Your task to perform on an android device: set an alarm Image 0: 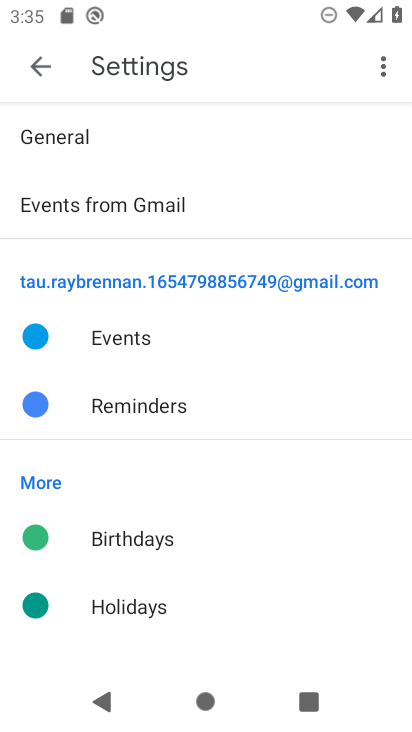
Step 0: press home button
Your task to perform on an android device: set an alarm Image 1: 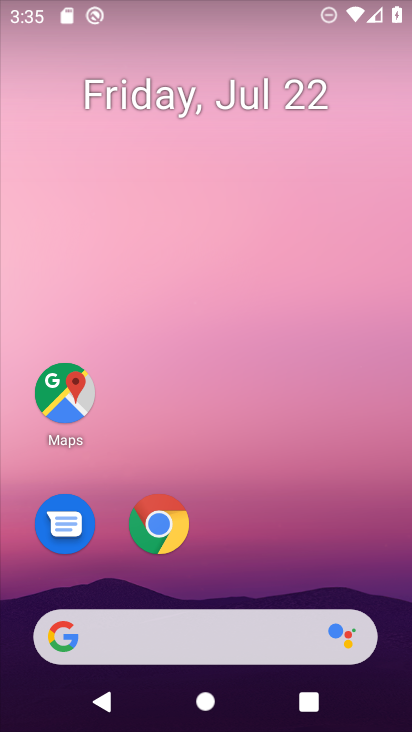
Step 1: drag from (156, 648) to (253, 93)
Your task to perform on an android device: set an alarm Image 2: 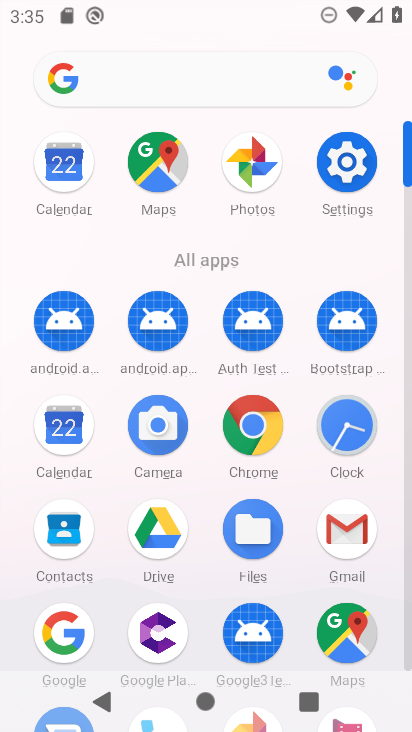
Step 2: click (354, 436)
Your task to perform on an android device: set an alarm Image 3: 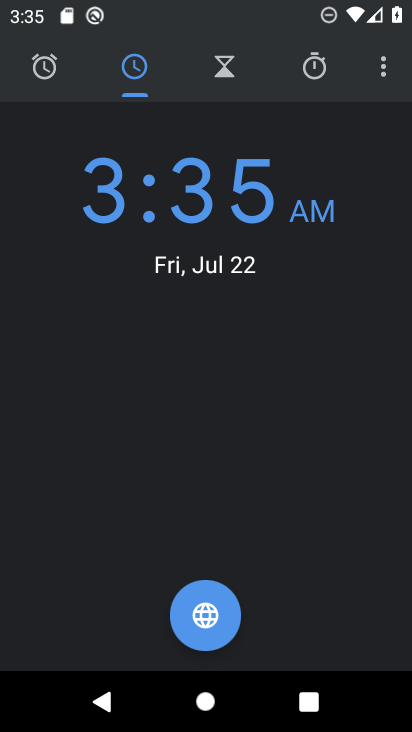
Step 3: click (34, 67)
Your task to perform on an android device: set an alarm Image 4: 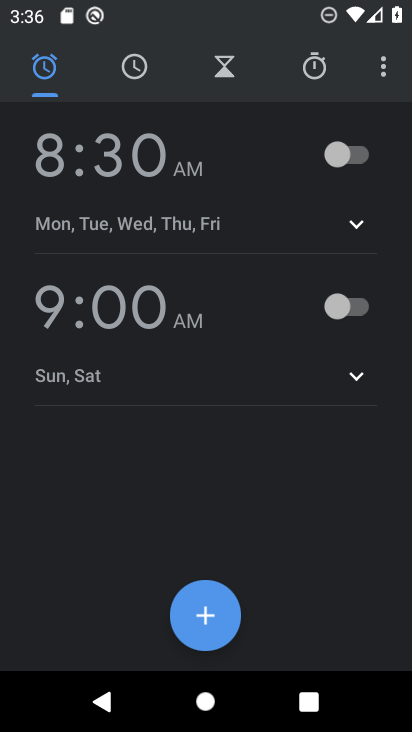
Step 4: click (358, 153)
Your task to perform on an android device: set an alarm Image 5: 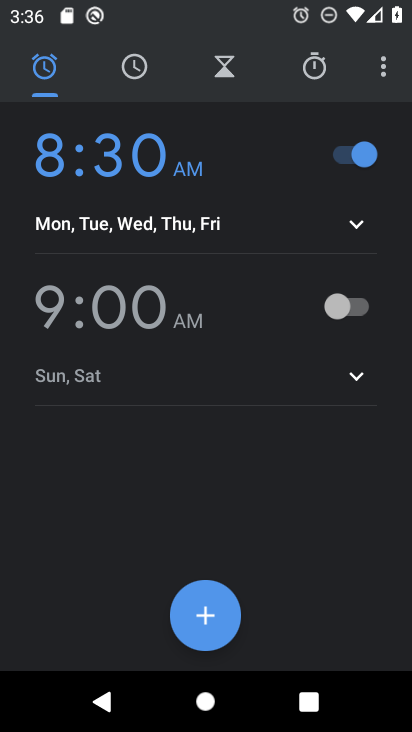
Step 5: task complete